Your task to perform on an android device: Go to Reddit.com Image 0: 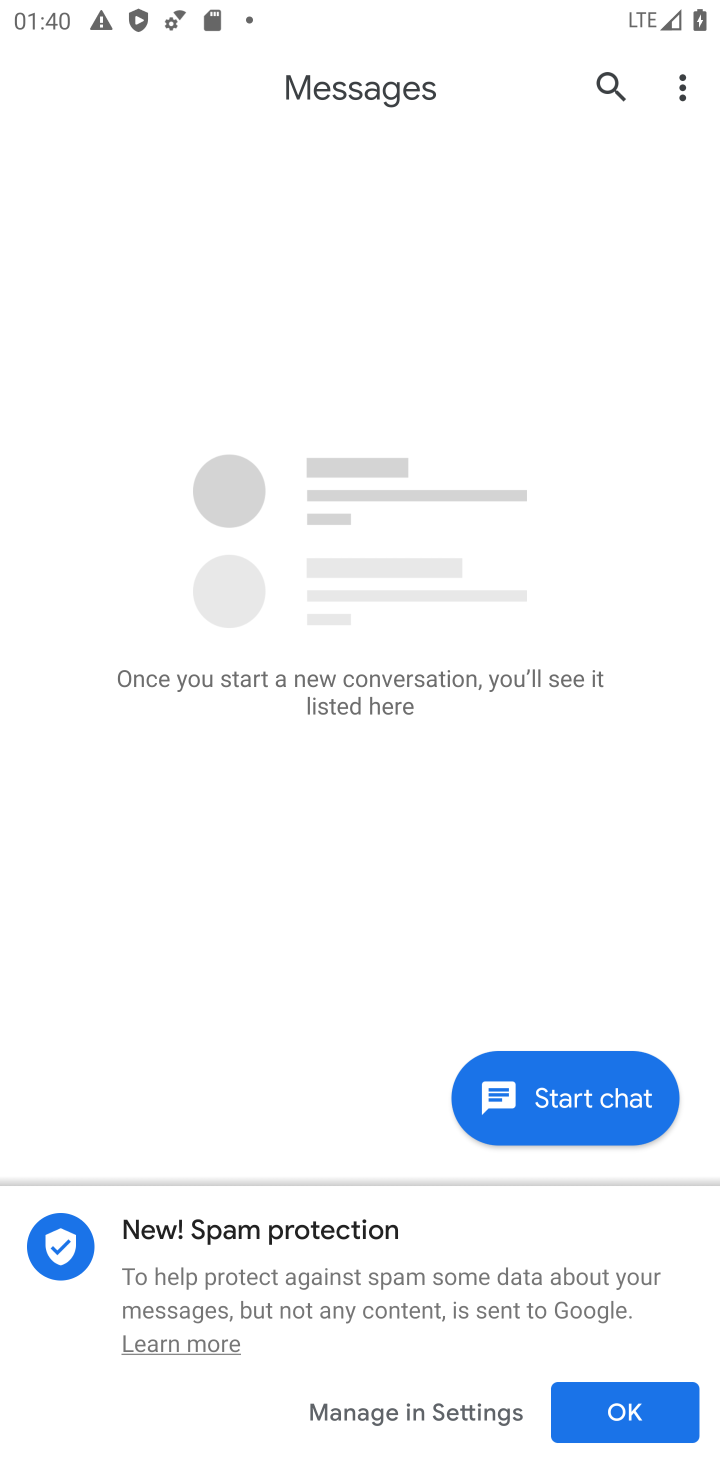
Step 0: press home button
Your task to perform on an android device: Go to Reddit.com Image 1: 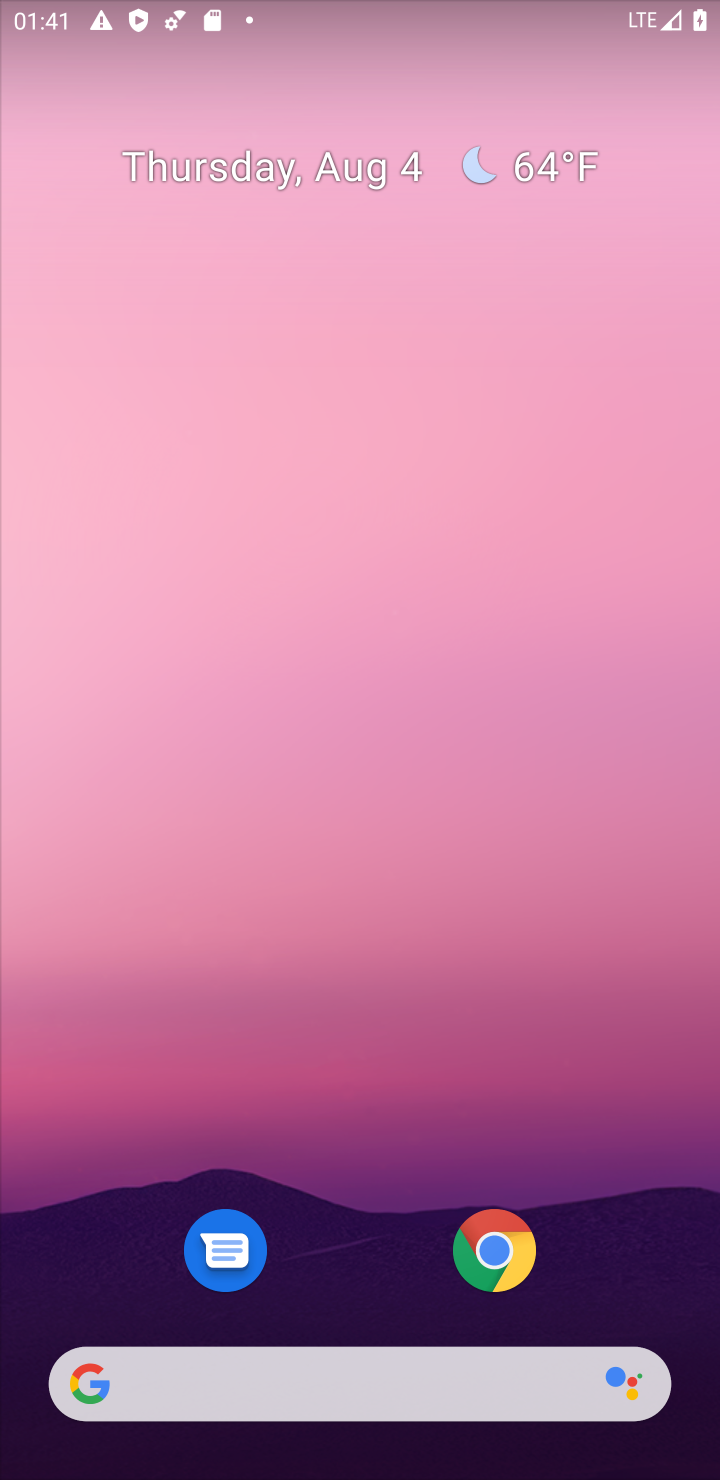
Step 1: click (508, 1272)
Your task to perform on an android device: Go to Reddit.com Image 2: 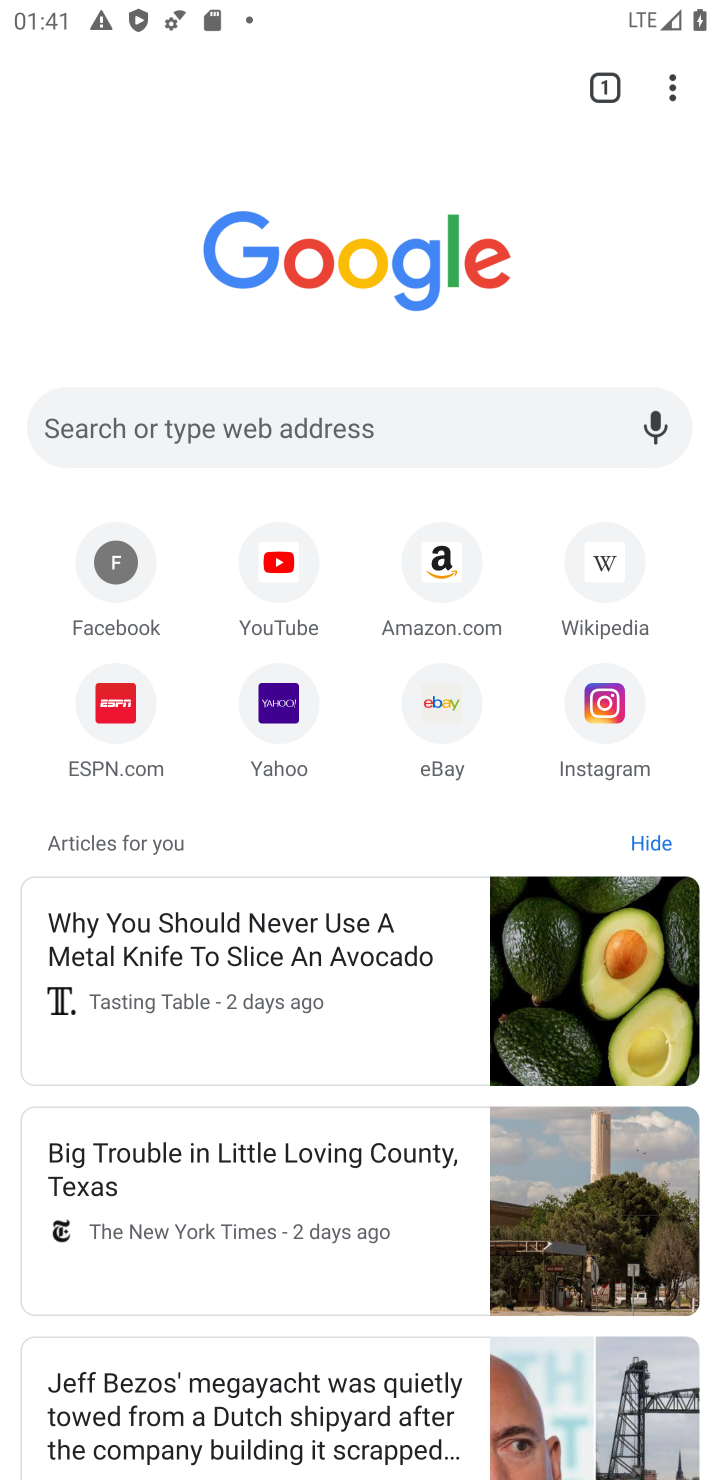
Step 2: click (436, 427)
Your task to perform on an android device: Go to Reddit.com Image 3: 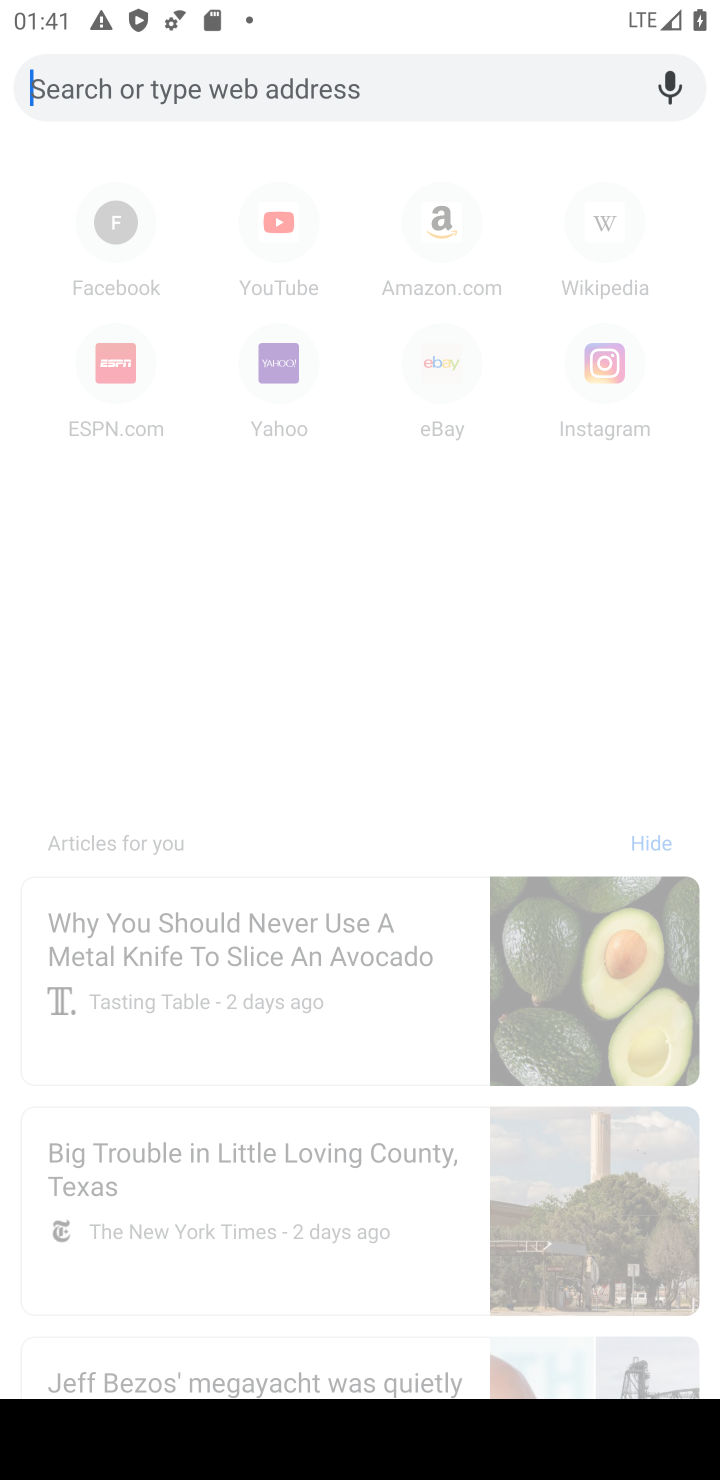
Step 3: type "reddit.com"
Your task to perform on an android device: Go to Reddit.com Image 4: 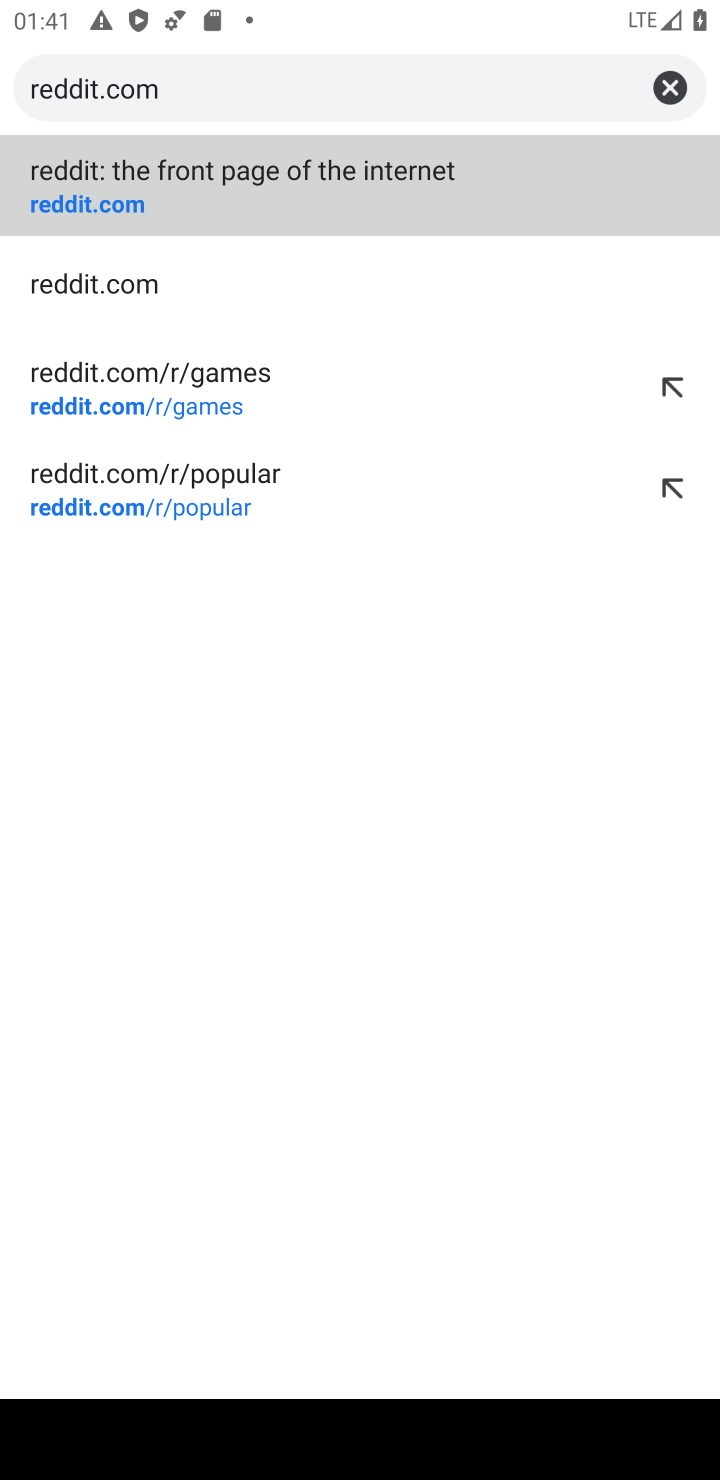
Step 4: click (348, 176)
Your task to perform on an android device: Go to Reddit.com Image 5: 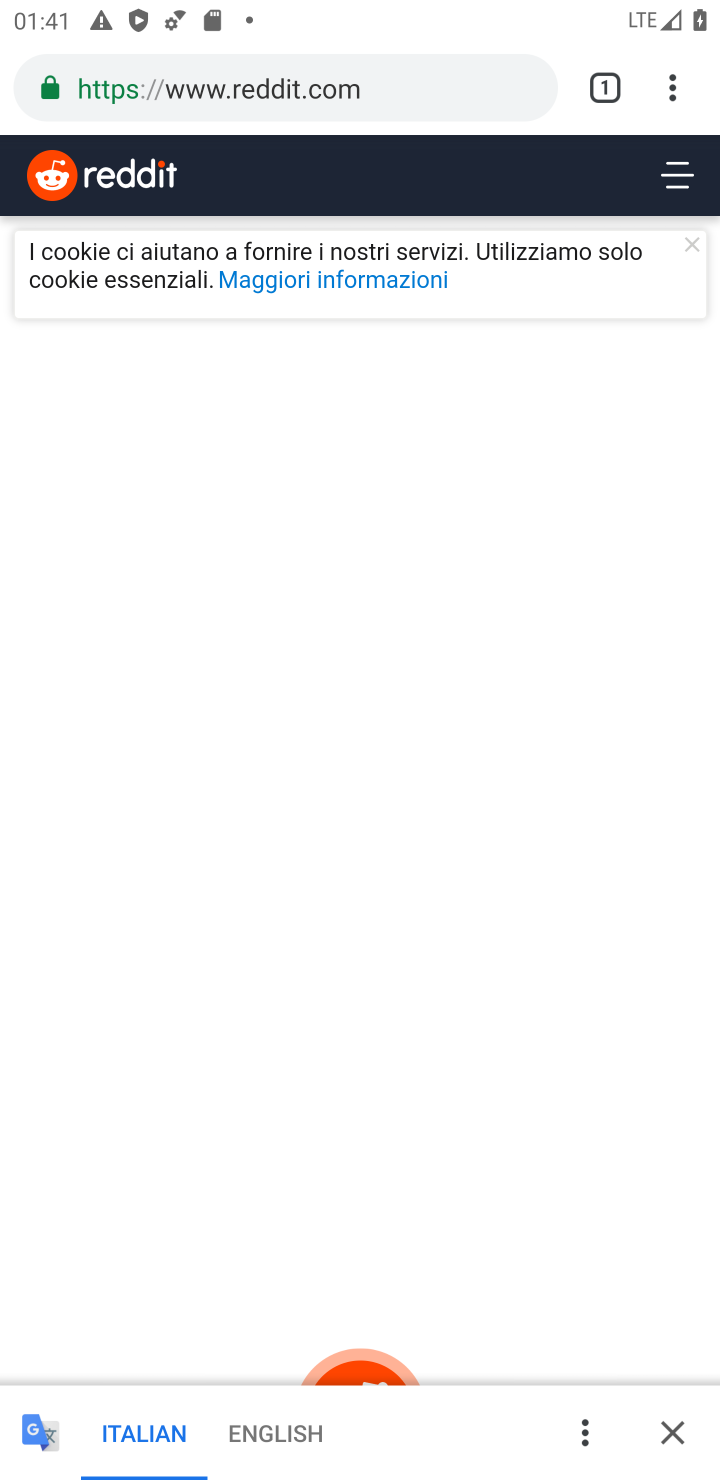
Step 5: task complete